Your task to perform on an android device: Open the calendar app, open the side menu, and click the "Day" option Image 0: 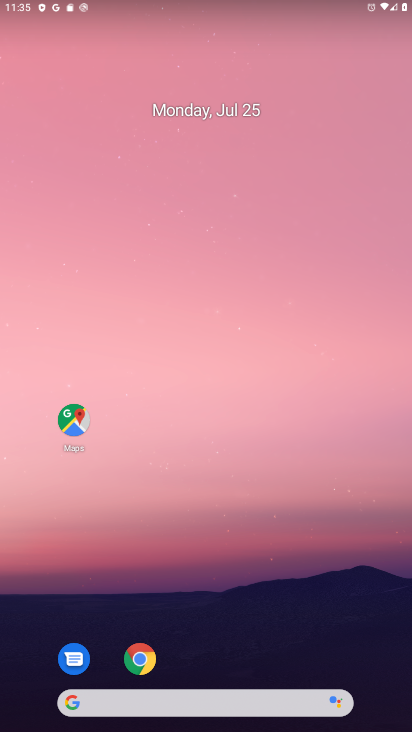
Step 0: drag from (208, 626) to (177, 166)
Your task to perform on an android device: Open the calendar app, open the side menu, and click the "Day" option Image 1: 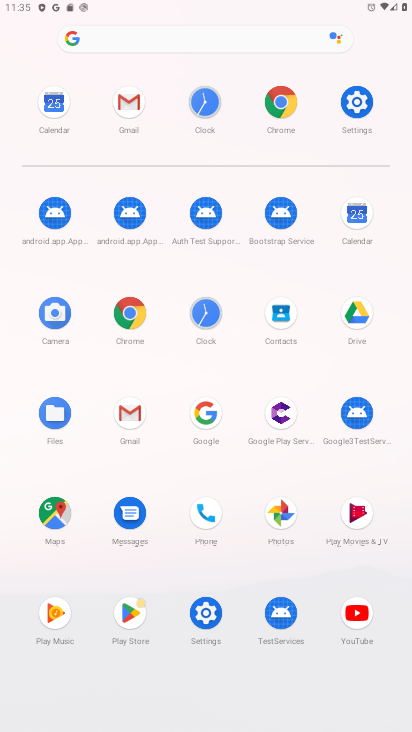
Step 1: click (355, 213)
Your task to perform on an android device: Open the calendar app, open the side menu, and click the "Day" option Image 2: 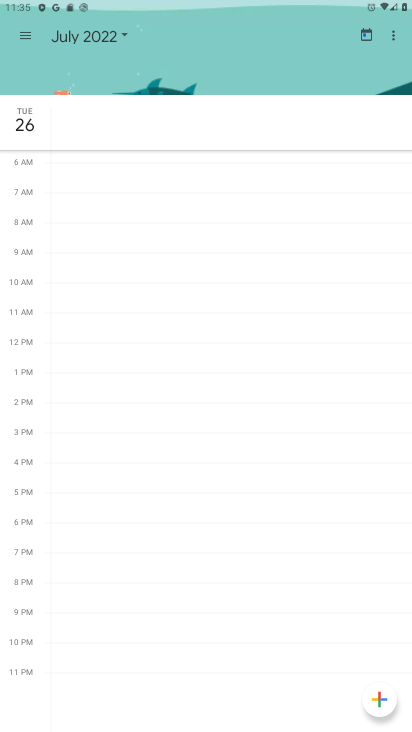
Step 2: click (19, 29)
Your task to perform on an android device: Open the calendar app, open the side menu, and click the "Day" option Image 3: 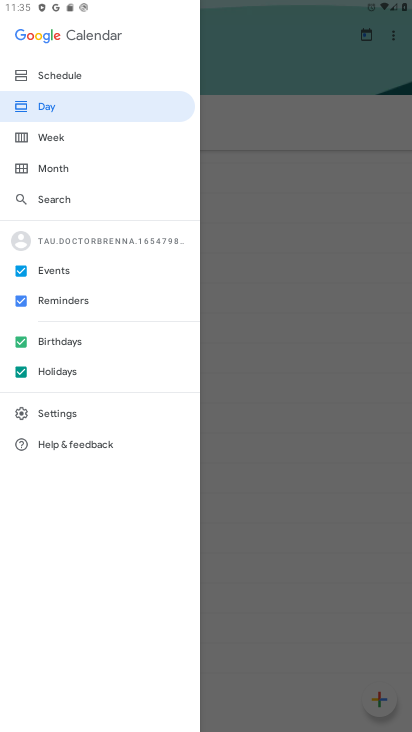
Step 3: click (48, 105)
Your task to perform on an android device: Open the calendar app, open the side menu, and click the "Day" option Image 4: 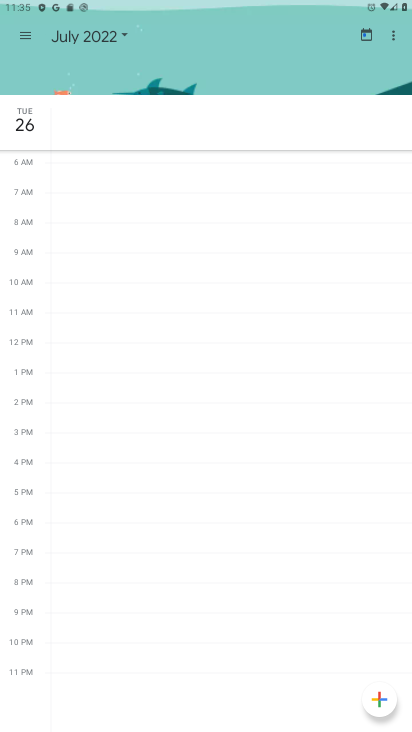
Step 4: task complete